Your task to perform on an android device: turn on showing notifications on the lock screen Image 0: 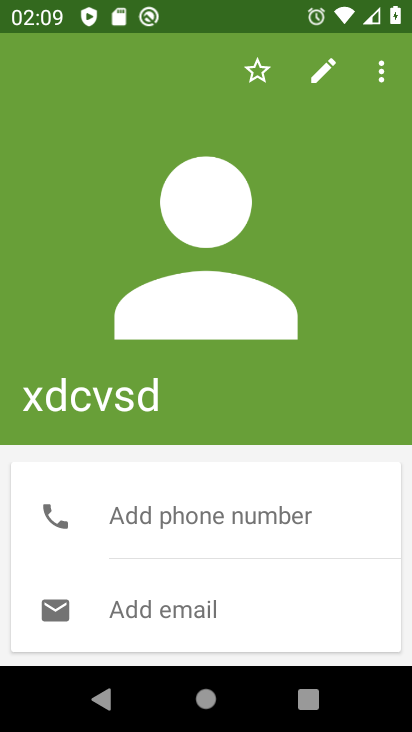
Step 0: press home button
Your task to perform on an android device: turn on showing notifications on the lock screen Image 1: 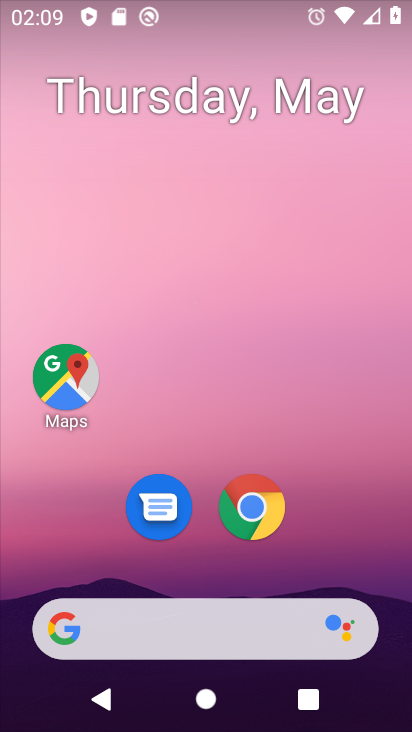
Step 1: drag from (362, 553) to (294, 115)
Your task to perform on an android device: turn on showing notifications on the lock screen Image 2: 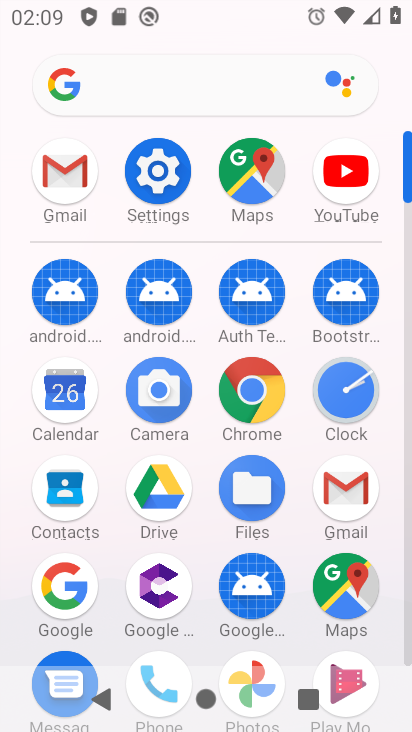
Step 2: click (153, 171)
Your task to perform on an android device: turn on showing notifications on the lock screen Image 3: 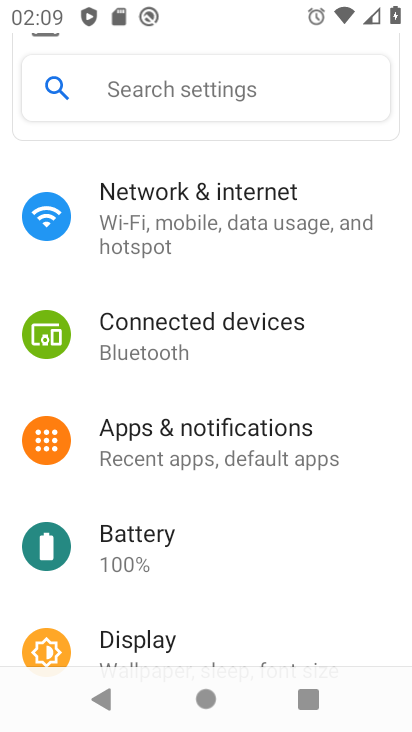
Step 3: drag from (283, 520) to (279, 306)
Your task to perform on an android device: turn on showing notifications on the lock screen Image 4: 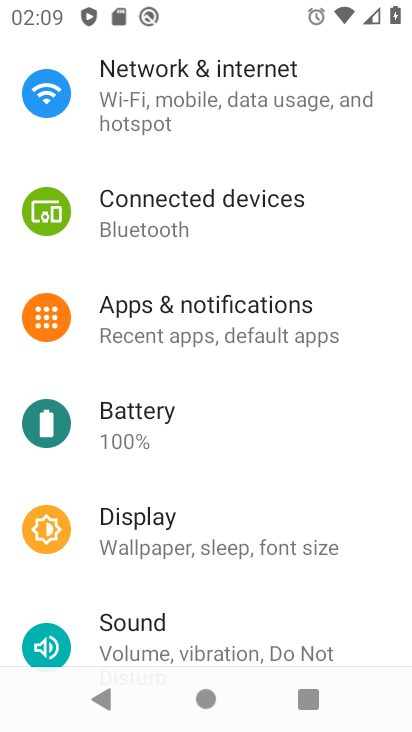
Step 4: click (220, 354)
Your task to perform on an android device: turn on showing notifications on the lock screen Image 5: 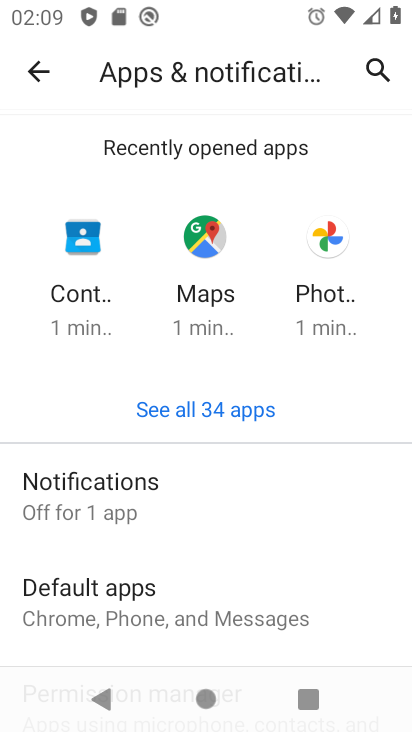
Step 5: drag from (276, 553) to (280, 193)
Your task to perform on an android device: turn on showing notifications on the lock screen Image 6: 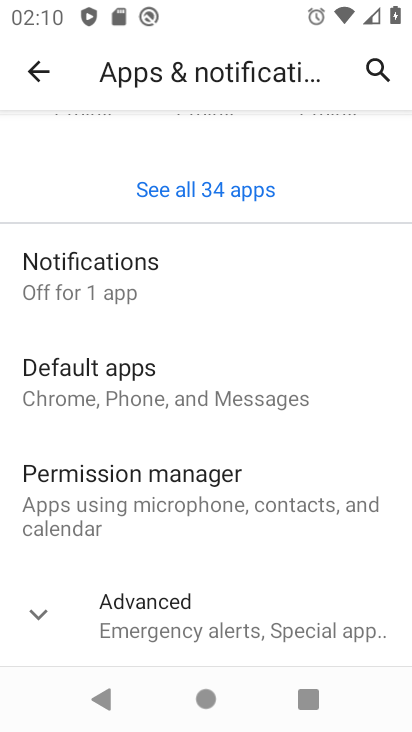
Step 6: click (271, 236)
Your task to perform on an android device: turn on showing notifications on the lock screen Image 7: 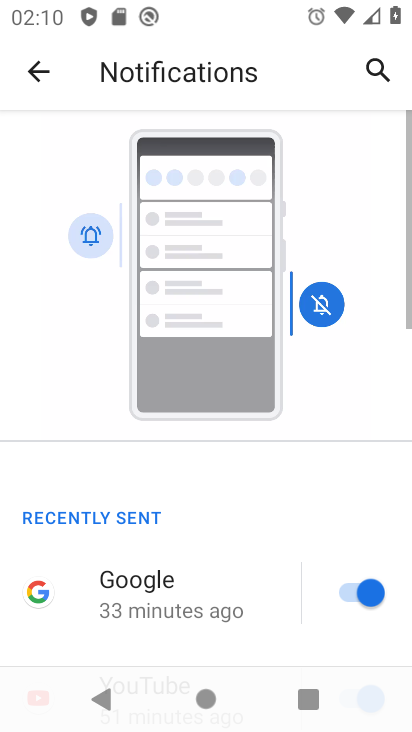
Step 7: click (183, 454)
Your task to perform on an android device: turn on showing notifications on the lock screen Image 8: 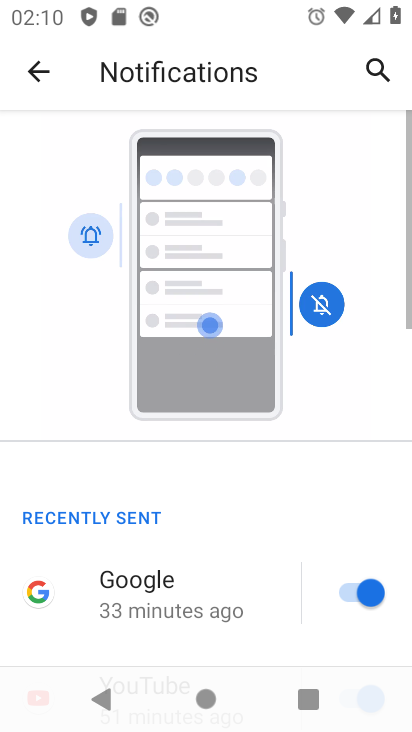
Step 8: drag from (183, 454) to (171, 23)
Your task to perform on an android device: turn on showing notifications on the lock screen Image 9: 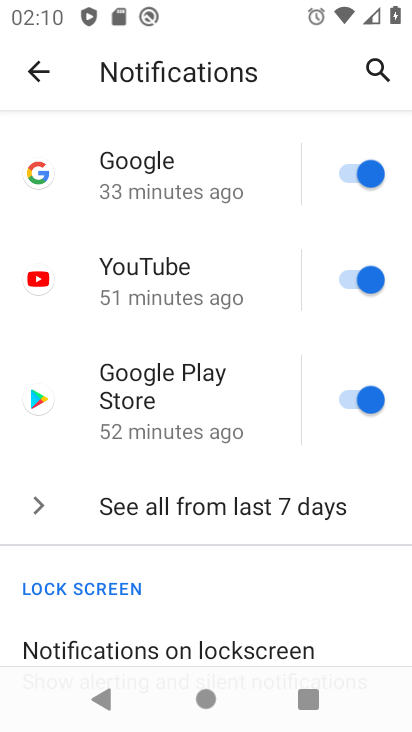
Step 9: drag from (148, 549) to (146, 190)
Your task to perform on an android device: turn on showing notifications on the lock screen Image 10: 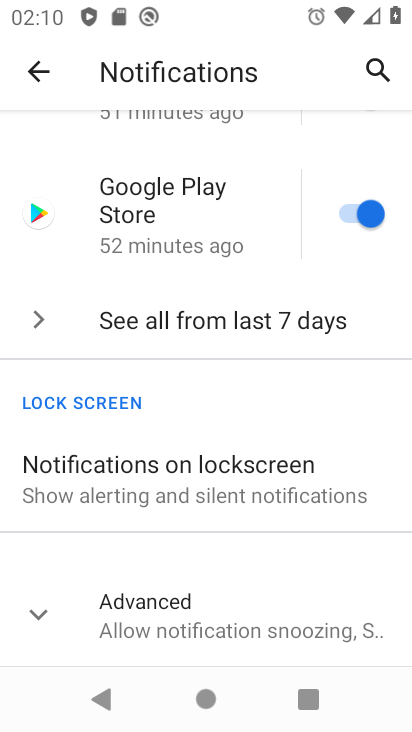
Step 10: click (207, 495)
Your task to perform on an android device: turn on showing notifications on the lock screen Image 11: 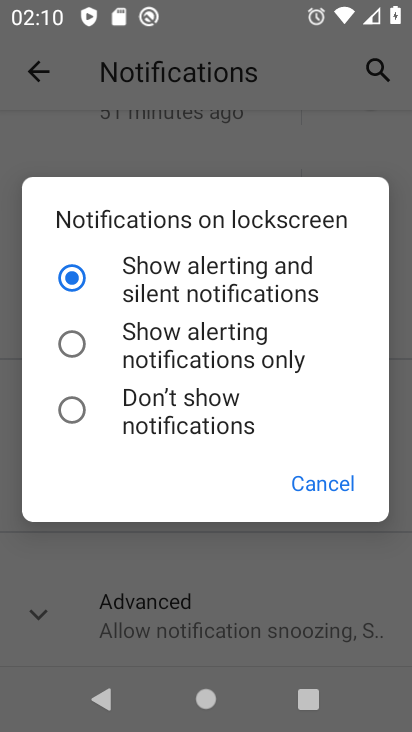
Step 11: task complete